Your task to perform on an android device: Search for Mexican restaurants on Maps Image 0: 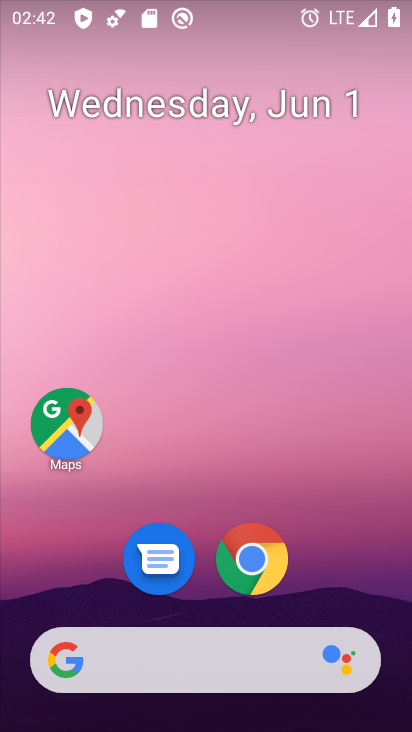
Step 0: press home button
Your task to perform on an android device: Search for Mexican restaurants on Maps Image 1: 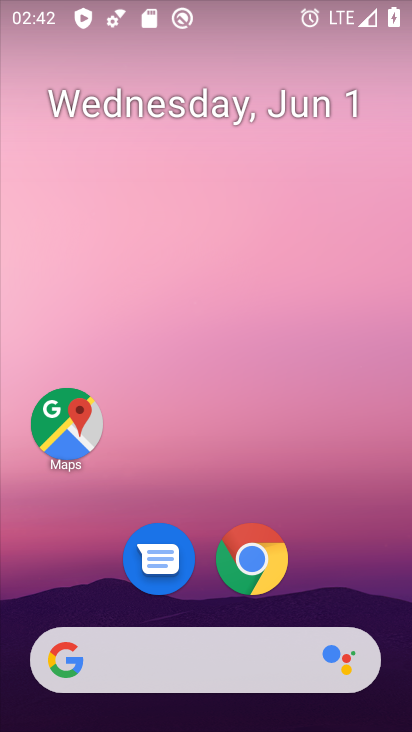
Step 1: click (70, 417)
Your task to perform on an android device: Search for Mexican restaurants on Maps Image 2: 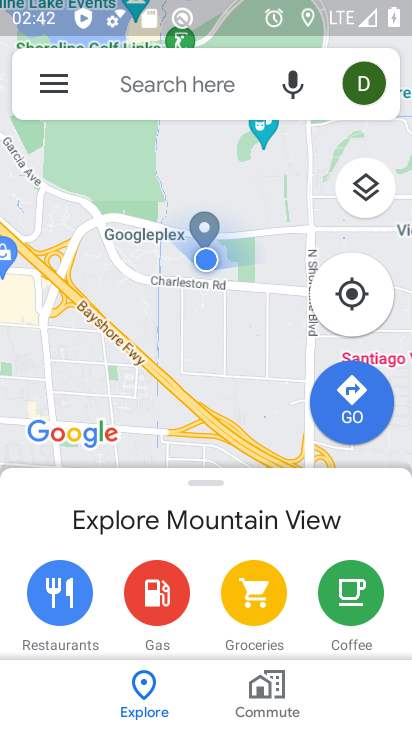
Step 2: click (222, 81)
Your task to perform on an android device: Search for Mexican restaurants on Maps Image 3: 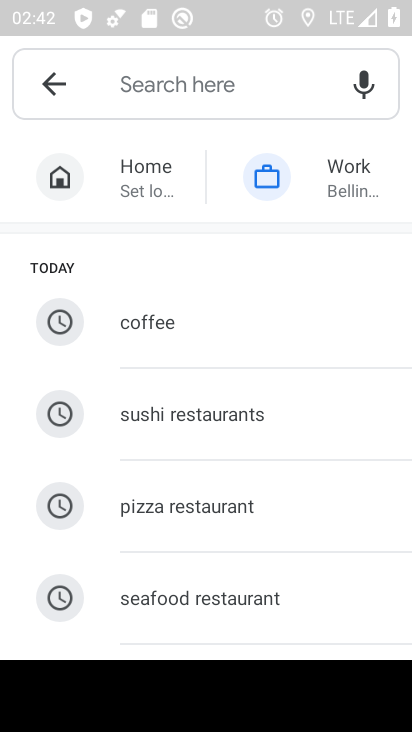
Step 3: type "Mexican restaurants"
Your task to perform on an android device: Search for Mexican restaurants on Maps Image 4: 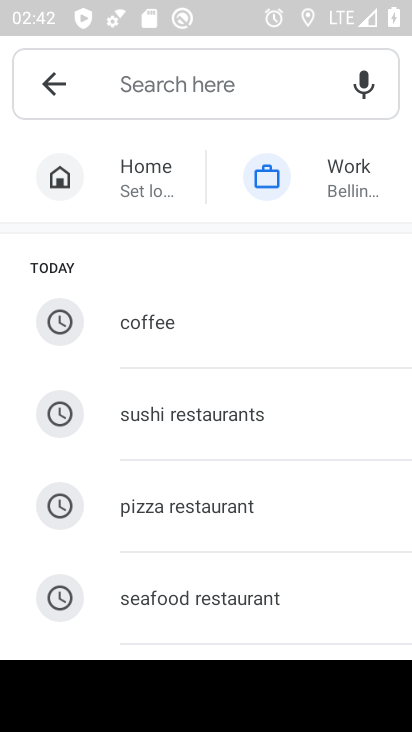
Step 4: click (250, 92)
Your task to perform on an android device: Search for Mexican restaurants on Maps Image 5: 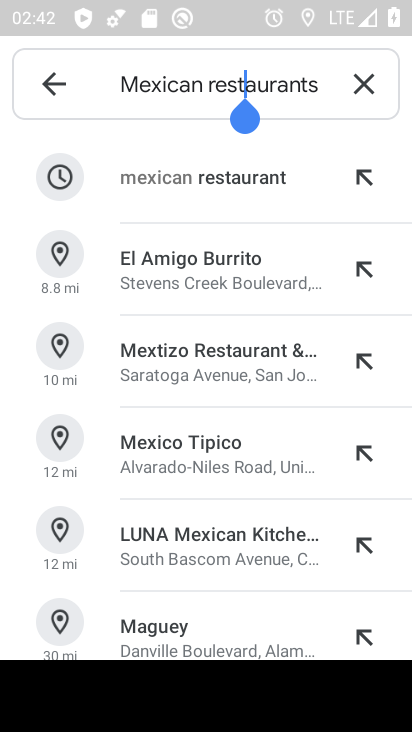
Step 5: click (200, 176)
Your task to perform on an android device: Search for Mexican restaurants on Maps Image 6: 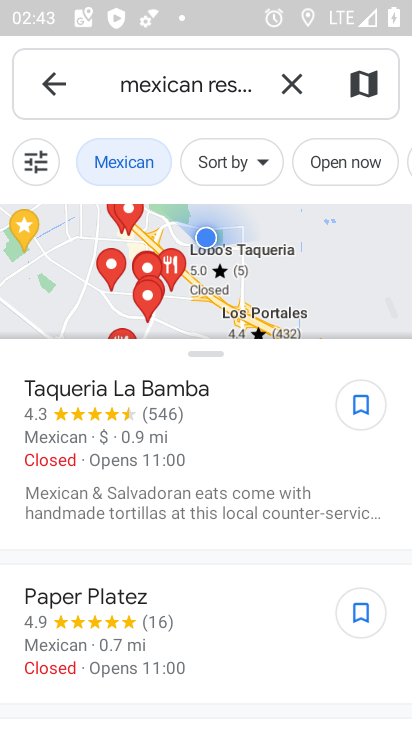
Step 6: task complete